Your task to perform on an android device: open the mobile data screen to see how much data has been used Image 0: 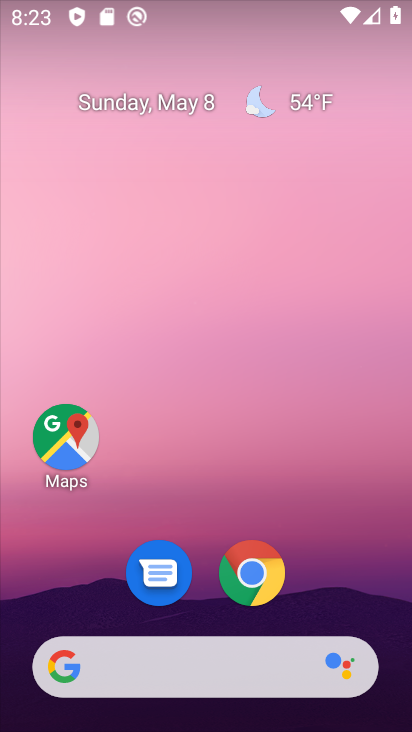
Step 0: drag from (230, 724) to (229, 175)
Your task to perform on an android device: open the mobile data screen to see how much data has been used Image 1: 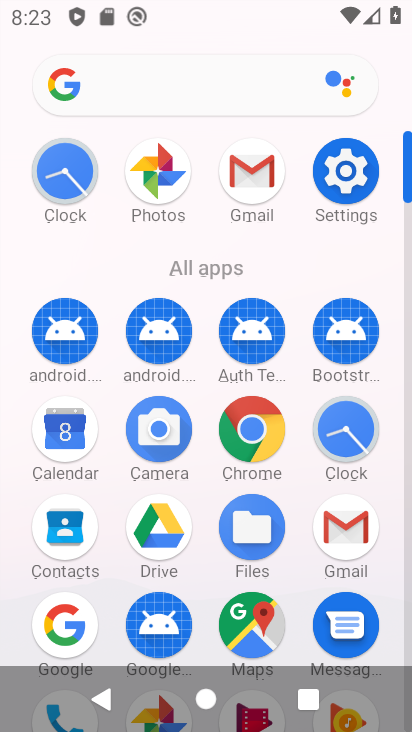
Step 1: click (359, 172)
Your task to perform on an android device: open the mobile data screen to see how much data has been used Image 2: 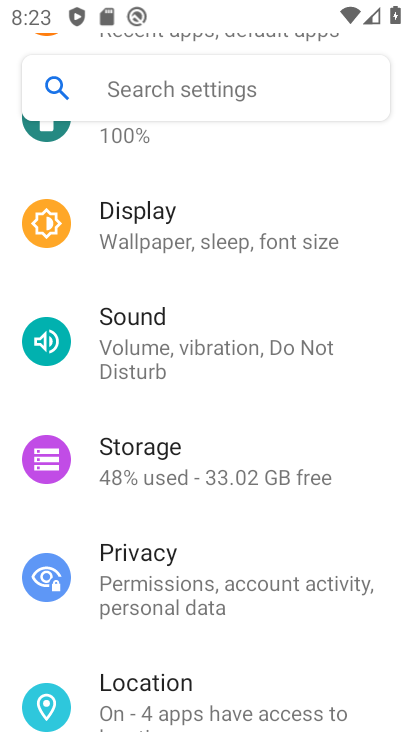
Step 2: drag from (220, 164) to (229, 534)
Your task to perform on an android device: open the mobile data screen to see how much data has been used Image 3: 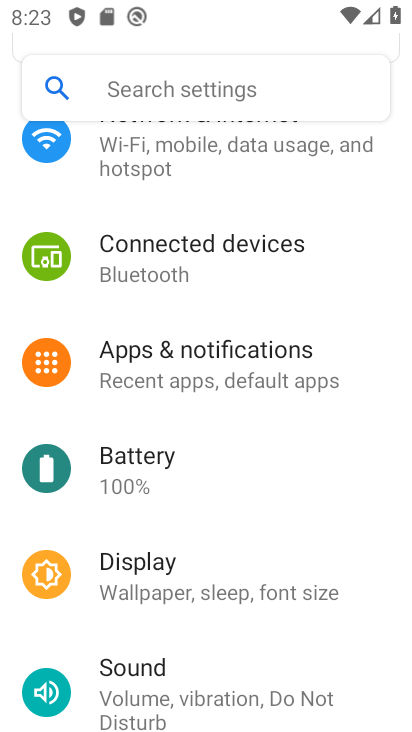
Step 3: drag from (245, 173) to (242, 447)
Your task to perform on an android device: open the mobile data screen to see how much data has been used Image 4: 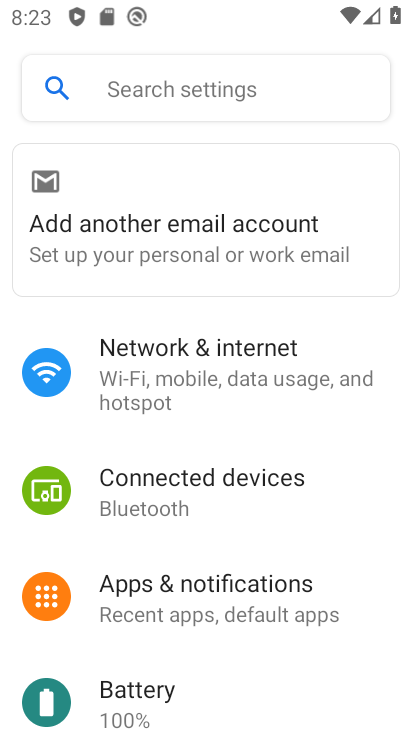
Step 4: click (164, 376)
Your task to perform on an android device: open the mobile data screen to see how much data has been used Image 5: 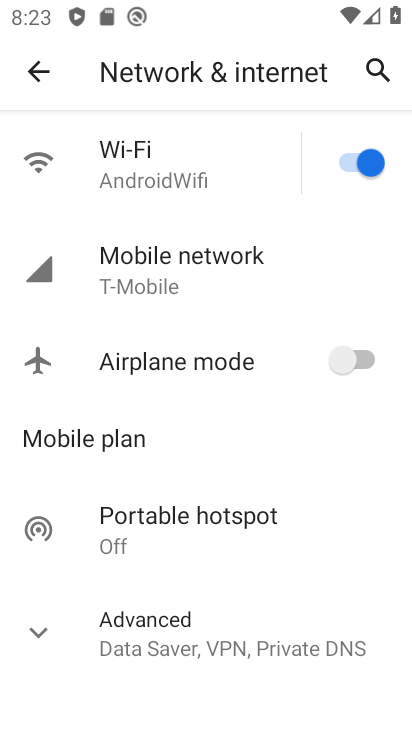
Step 5: click (150, 274)
Your task to perform on an android device: open the mobile data screen to see how much data has been used Image 6: 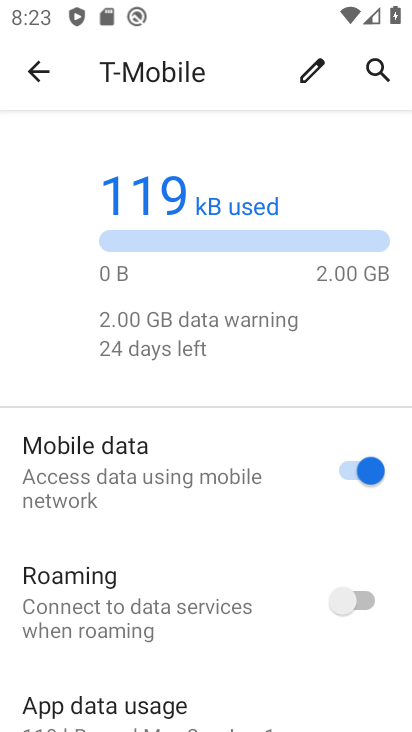
Step 6: drag from (205, 684) to (210, 430)
Your task to perform on an android device: open the mobile data screen to see how much data has been used Image 7: 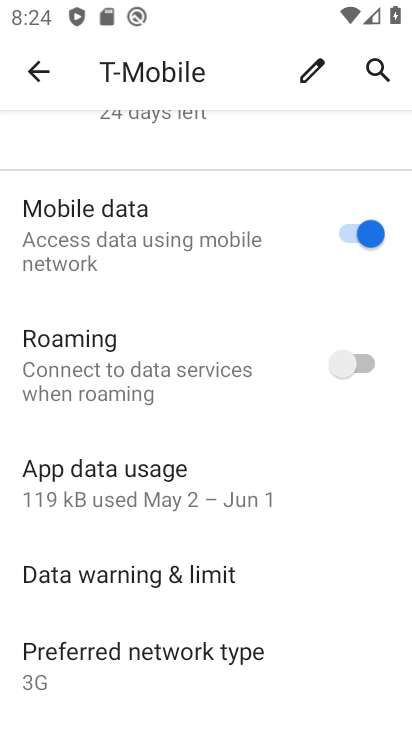
Step 7: drag from (237, 635) to (236, 534)
Your task to perform on an android device: open the mobile data screen to see how much data has been used Image 8: 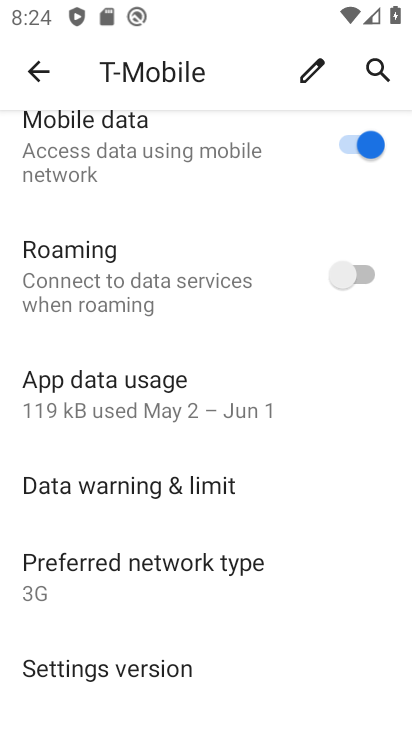
Step 8: click (109, 398)
Your task to perform on an android device: open the mobile data screen to see how much data has been used Image 9: 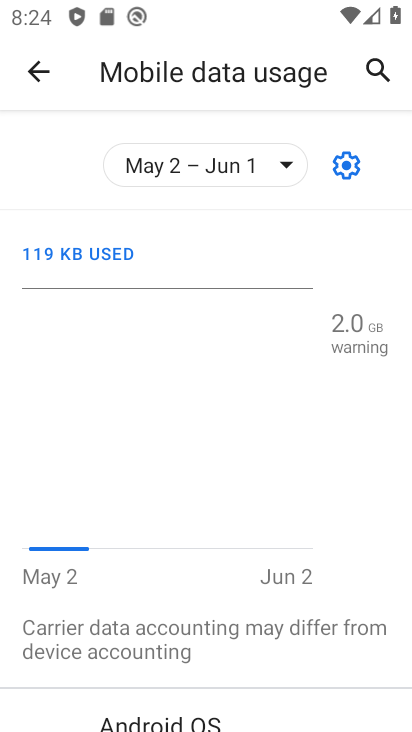
Step 9: task complete